Your task to perform on an android device: toggle javascript in the chrome app Image 0: 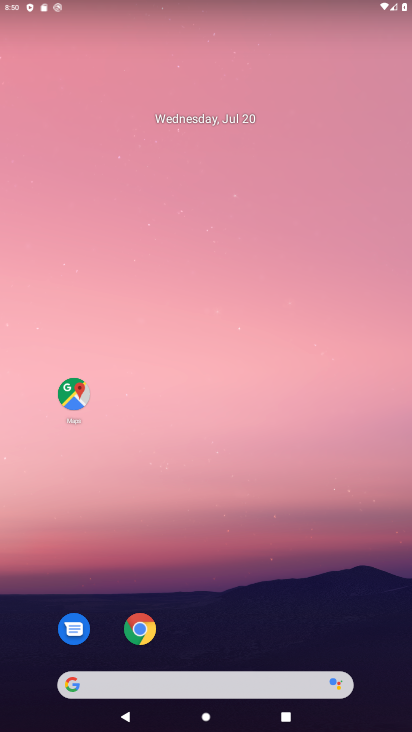
Step 0: click (140, 628)
Your task to perform on an android device: toggle javascript in the chrome app Image 1: 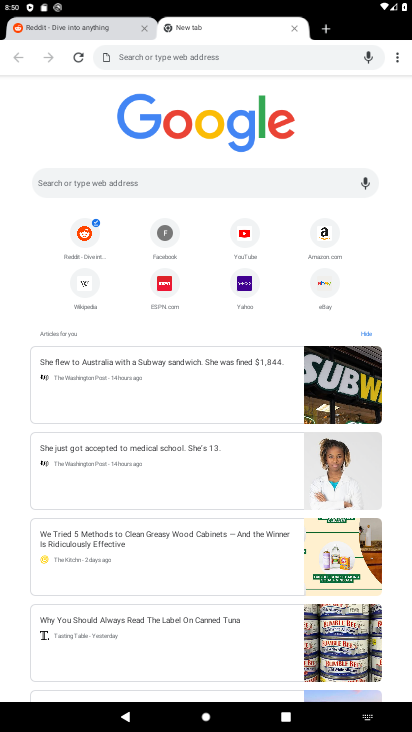
Step 1: click (395, 60)
Your task to perform on an android device: toggle javascript in the chrome app Image 2: 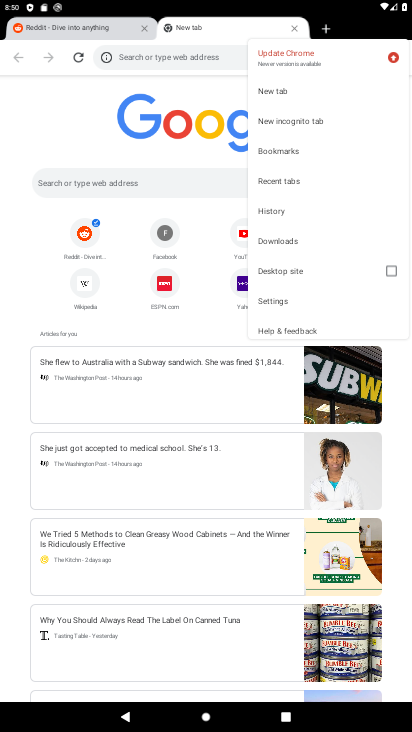
Step 2: click (277, 300)
Your task to perform on an android device: toggle javascript in the chrome app Image 3: 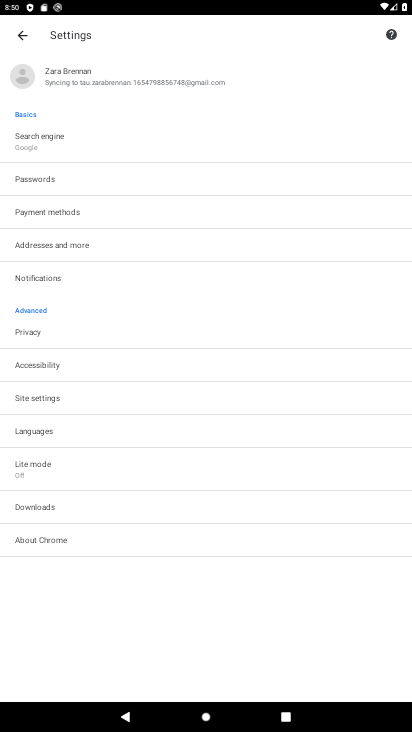
Step 3: click (47, 399)
Your task to perform on an android device: toggle javascript in the chrome app Image 4: 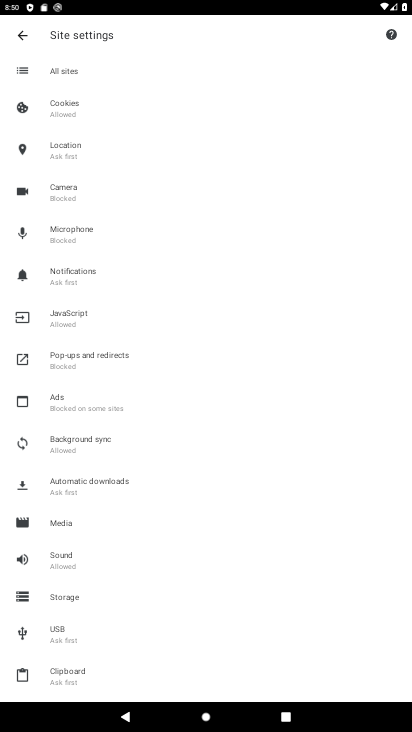
Step 4: click (60, 317)
Your task to perform on an android device: toggle javascript in the chrome app Image 5: 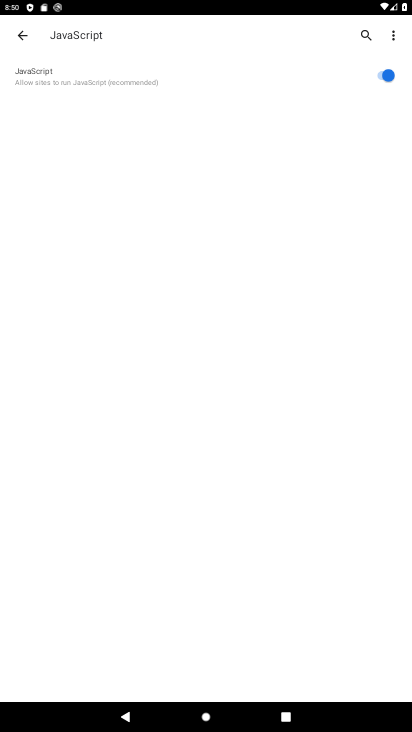
Step 5: click (379, 72)
Your task to perform on an android device: toggle javascript in the chrome app Image 6: 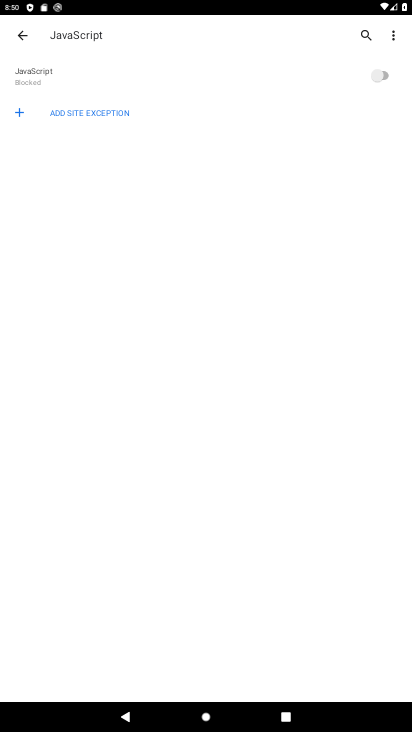
Step 6: task complete